Your task to perform on an android device: Open Google Chrome and click the shortcut for Amazon.com Image 0: 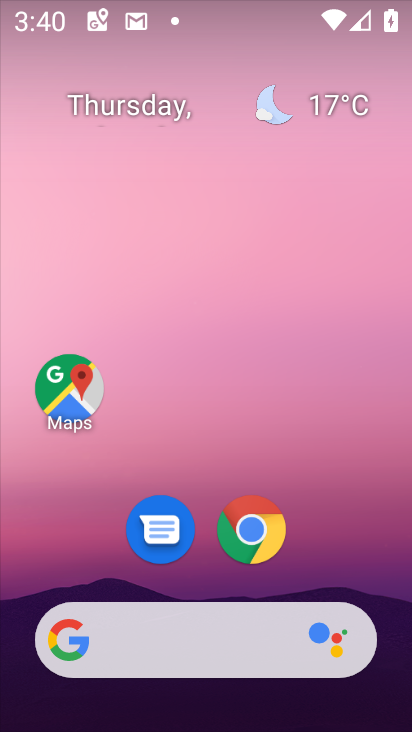
Step 0: click (251, 526)
Your task to perform on an android device: Open Google Chrome and click the shortcut for Amazon.com Image 1: 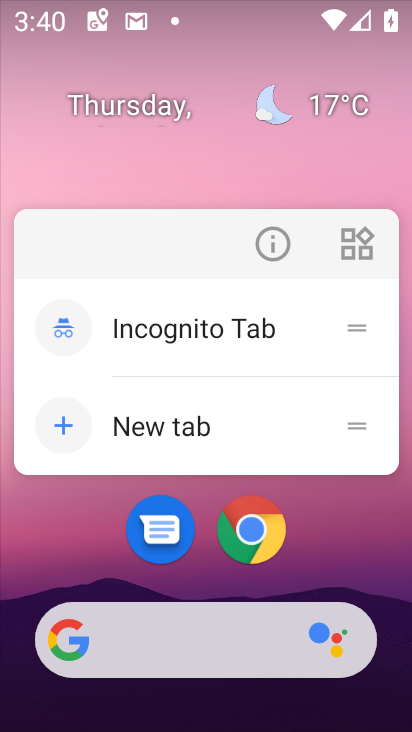
Step 1: click (251, 526)
Your task to perform on an android device: Open Google Chrome and click the shortcut for Amazon.com Image 2: 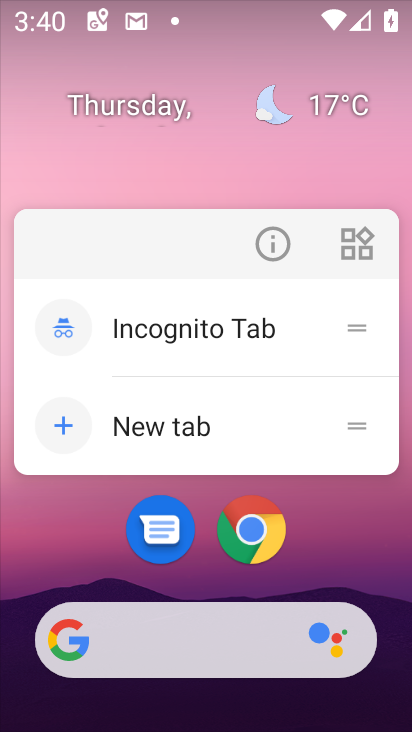
Step 2: click (249, 539)
Your task to perform on an android device: Open Google Chrome and click the shortcut for Amazon.com Image 3: 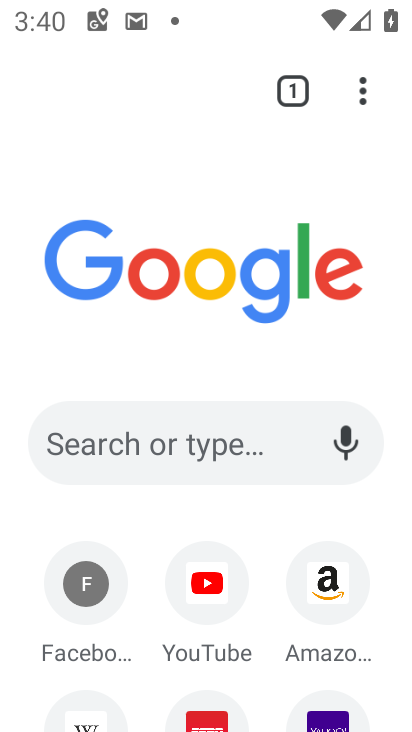
Step 3: click (340, 587)
Your task to perform on an android device: Open Google Chrome and click the shortcut for Amazon.com Image 4: 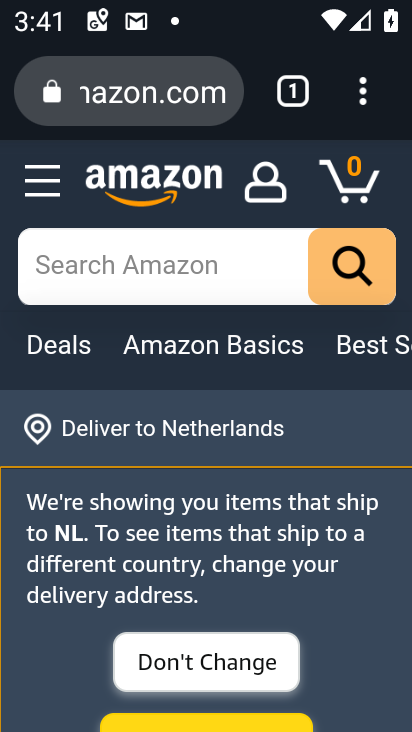
Step 4: task complete